Your task to perform on an android device: turn smart compose on in the gmail app Image 0: 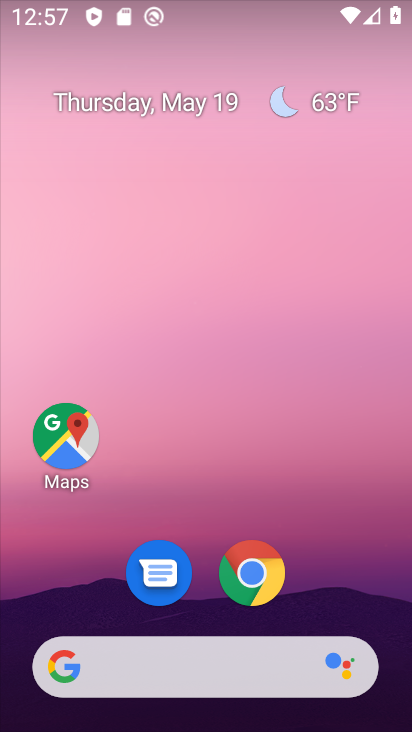
Step 0: drag from (319, 488) to (354, 135)
Your task to perform on an android device: turn smart compose on in the gmail app Image 1: 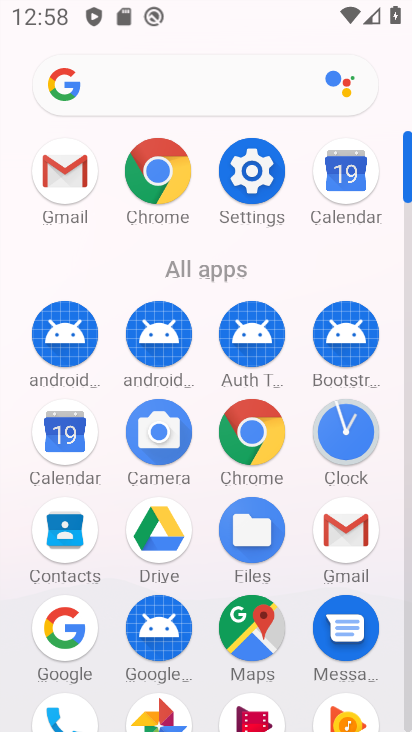
Step 1: click (54, 157)
Your task to perform on an android device: turn smart compose on in the gmail app Image 2: 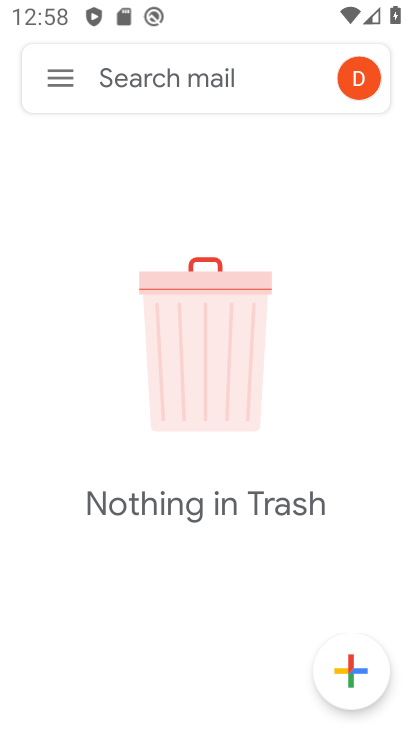
Step 2: click (58, 86)
Your task to perform on an android device: turn smart compose on in the gmail app Image 3: 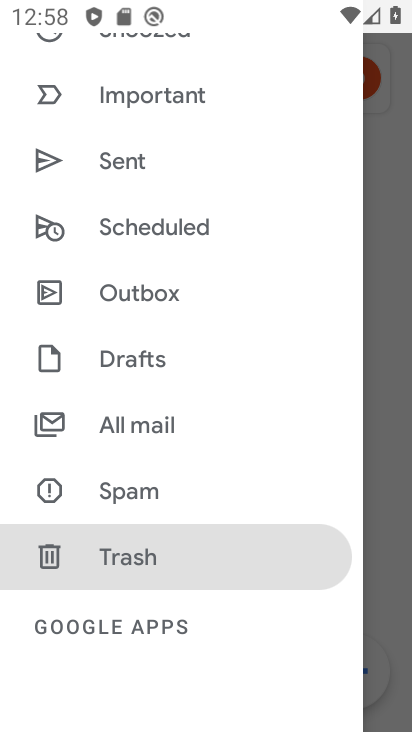
Step 3: drag from (188, 499) to (230, 137)
Your task to perform on an android device: turn smart compose on in the gmail app Image 4: 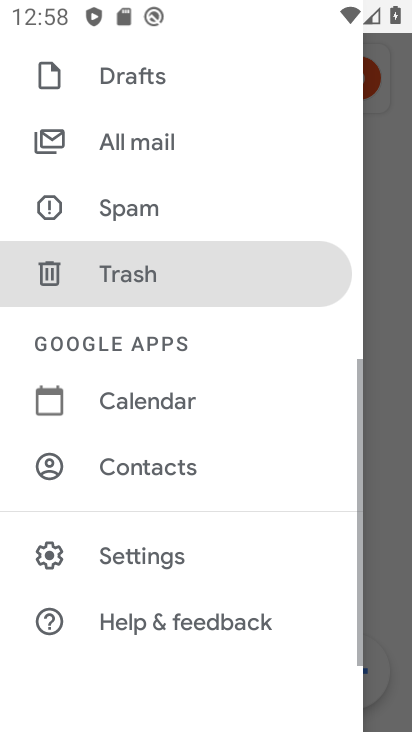
Step 4: click (137, 549)
Your task to perform on an android device: turn smart compose on in the gmail app Image 5: 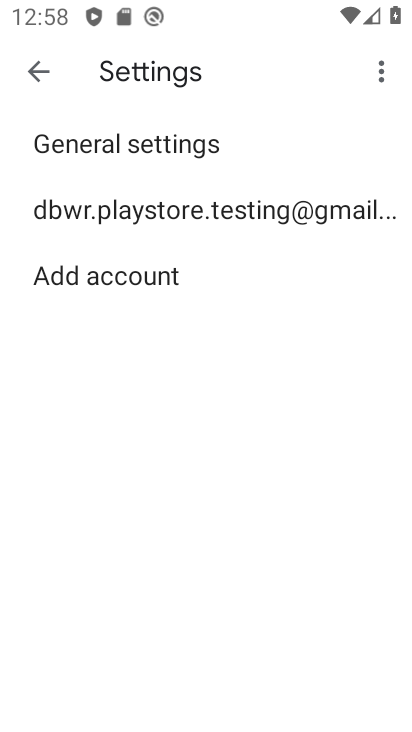
Step 5: click (156, 222)
Your task to perform on an android device: turn smart compose on in the gmail app Image 6: 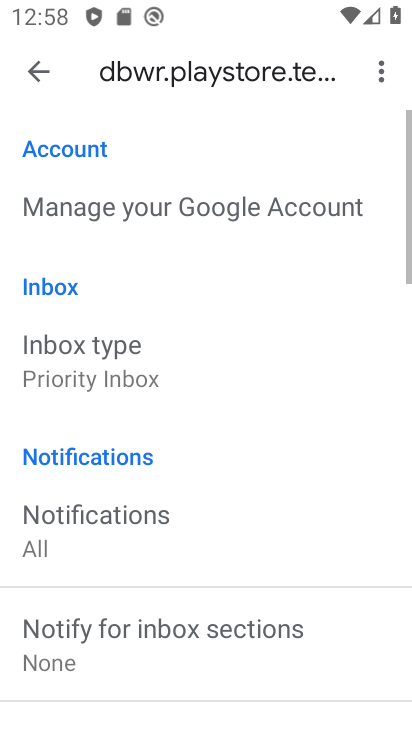
Step 6: task complete